Your task to perform on an android device: turn on the 12-hour format for clock Image 0: 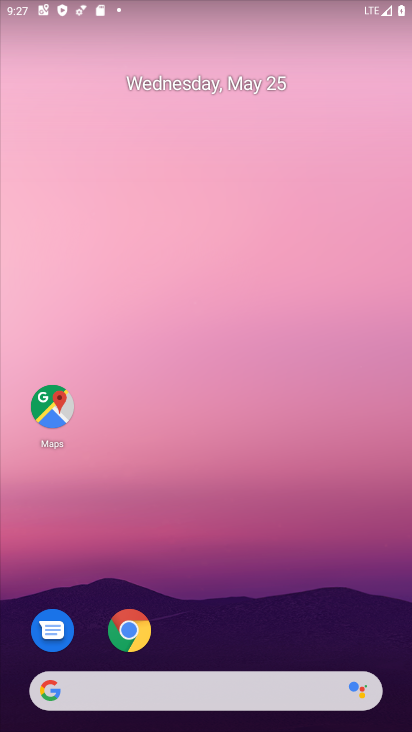
Step 0: drag from (232, 622) to (292, 169)
Your task to perform on an android device: turn on the 12-hour format for clock Image 1: 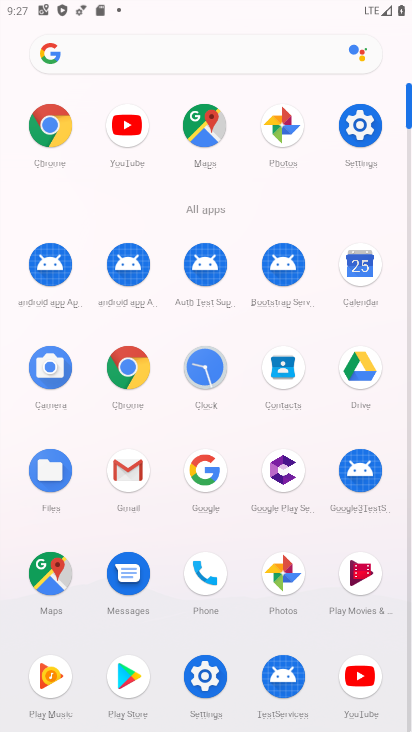
Step 1: click (193, 376)
Your task to perform on an android device: turn on the 12-hour format for clock Image 2: 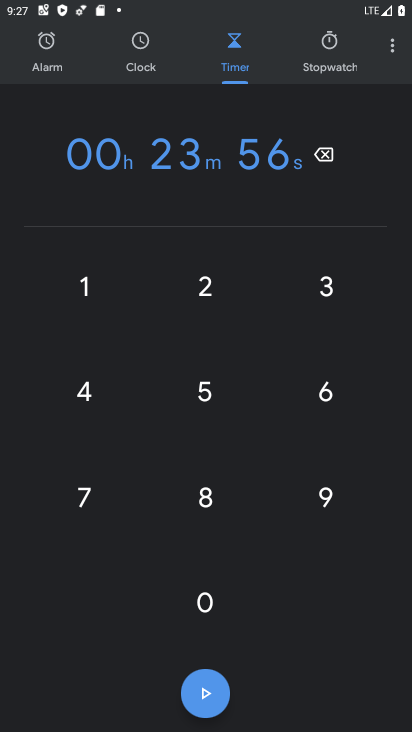
Step 2: click (385, 39)
Your task to perform on an android device: turn on the 12-hour format for clock Image 3: 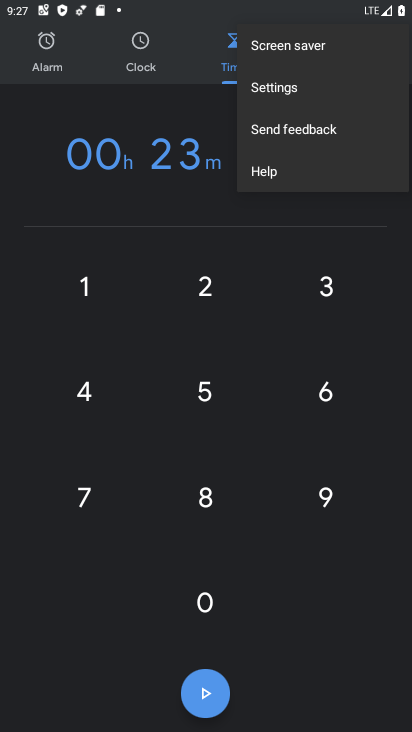
Step 3: click (276, 78)
Your task to perform on an android device: turn on the 12-hour format for clock Image 4: 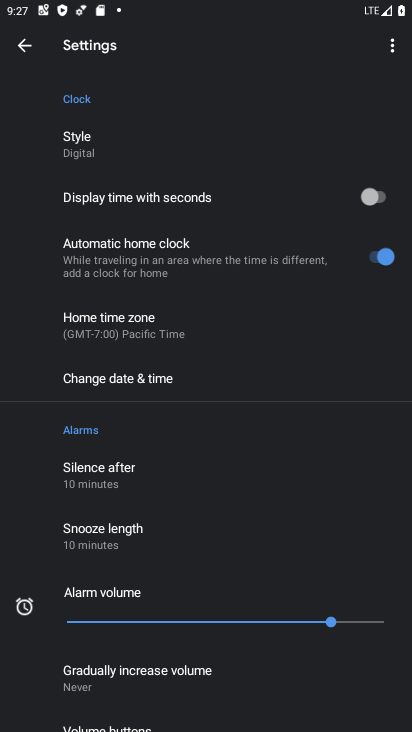
Step 4: click (132, 387)
Your task to perform on an android device: turn on the 12-hour format for clock Image 5: 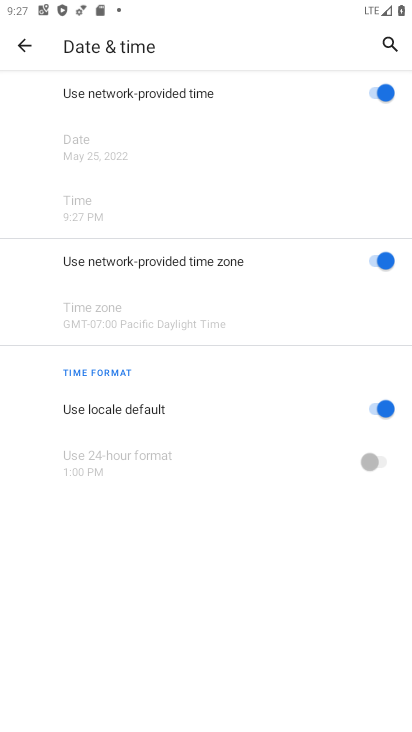
Step 5: task complete